Your task to perform on an android device: Show me productivity apps on the Play Store Image 0: 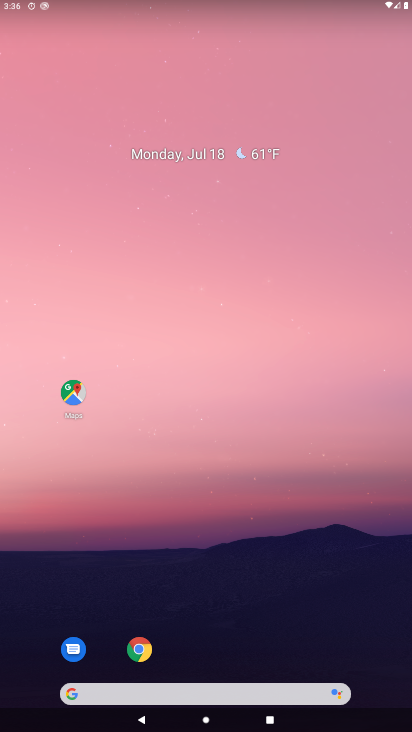
Step 0: drag from (183, 406) to (287, 112)
Your task to perform on an android device: Show me productivity apps on the Play Store Image 1: 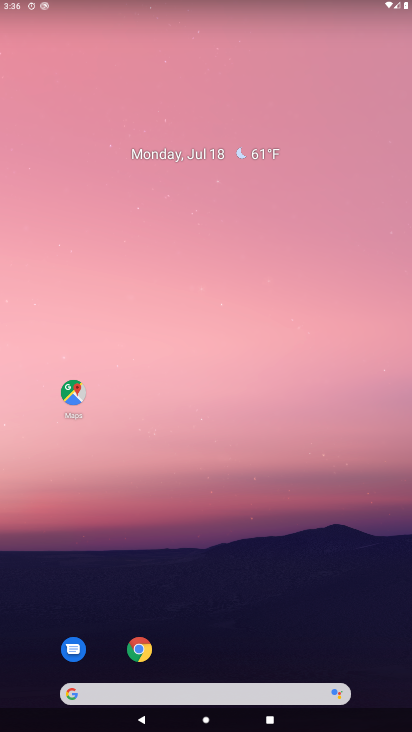
Step 1: drag from (85, 606) to (234, 25)
Your task to perform on an android device: Show me productivity apps on the Play Store Image 2: 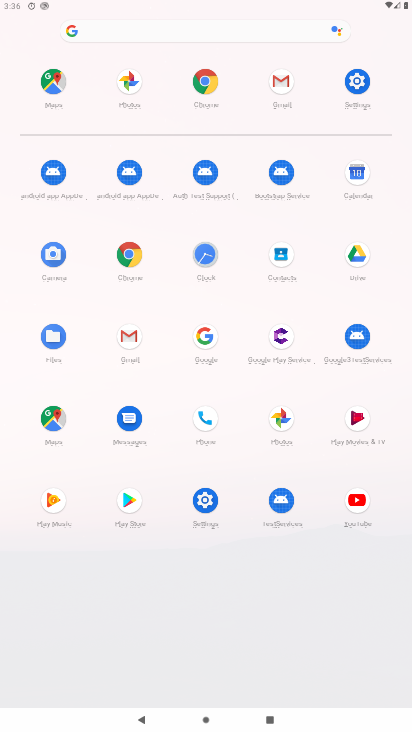
Step 2: click (119, 495)
Your task to perform on an android device: Show me productivity apps on the Play Store Image 3: 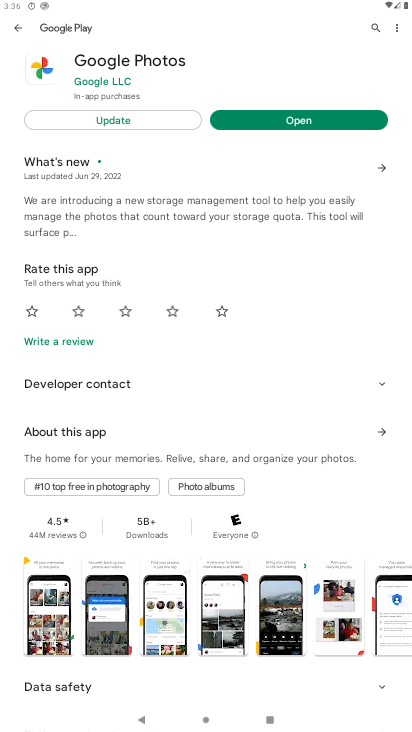
Step 3: click (12, 26)
Your task to perform on an android device: Show me productivity apps on the Play Store Image 4: 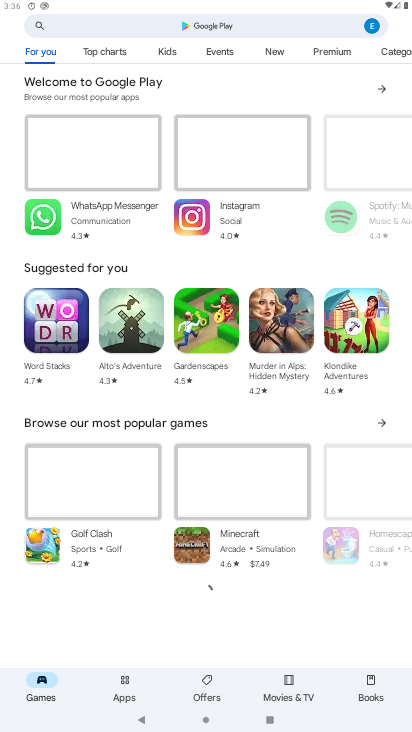
Step 4: click (80, 21)
Your task to perform on an android device: Show me productivity apps on the Play Store Image 5: 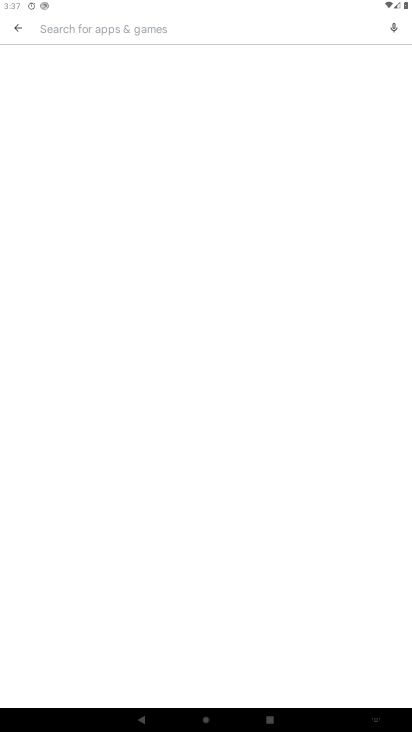
Step 5: type "productivity apps"
Your task to perform on an android device: Show me productivity apps on the Play Store Image 6: 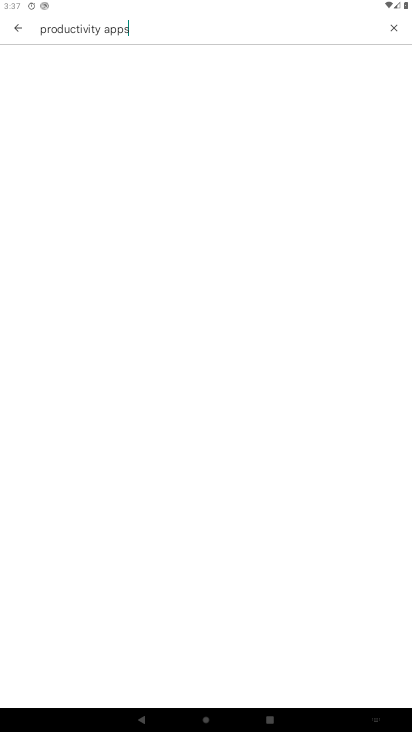
Step 6: type ""
Your task to perform on an android device: Show me productivity apps on the Play Store Image 7: 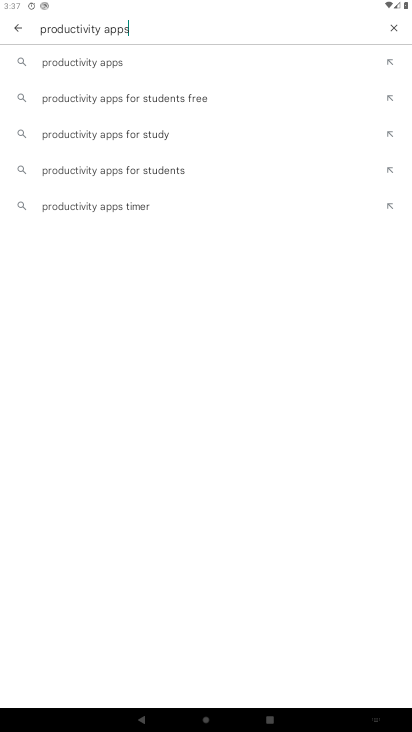
Step 7: click (51, 61)
Your task to perform on an android device: Show me productivity apps on the Play Store Image 8: 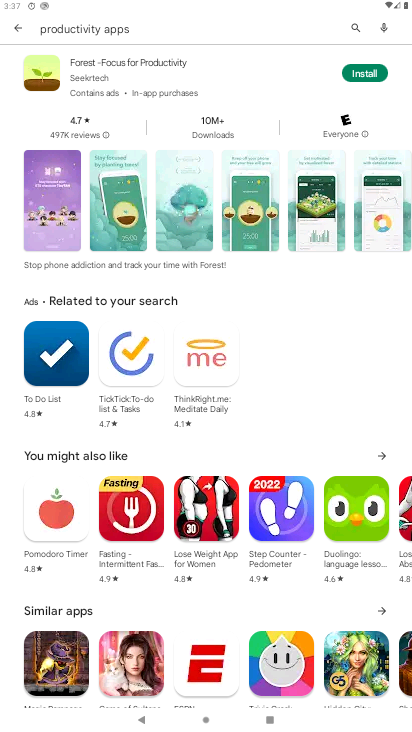
Step 8: task complete